Your task to perform on an android device: empty trash in the gmail app Image 0: 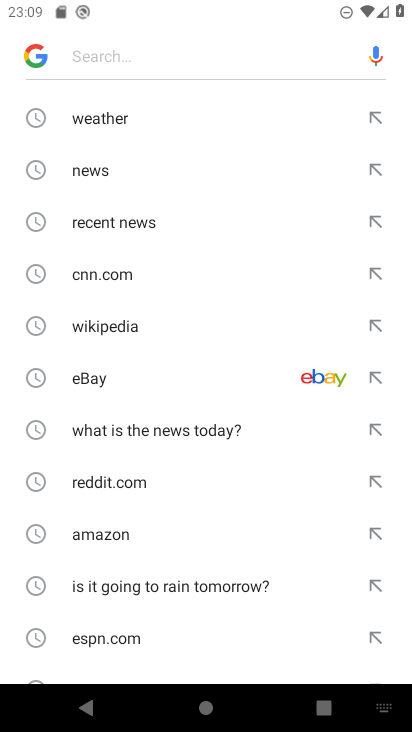
Step 0: press home button
Your task to perform on an android device: empty trash in the gmail app Image 1: 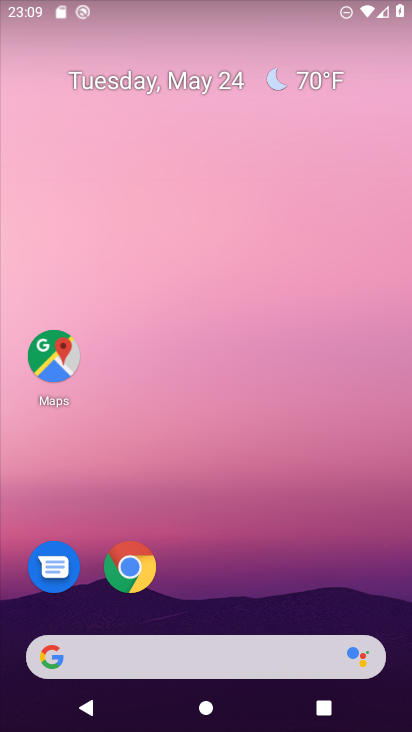
Step 1: drag from (265, 582) to (215, 88)
Your task to perform on an android device: empty trash in the gmail app Image 2: 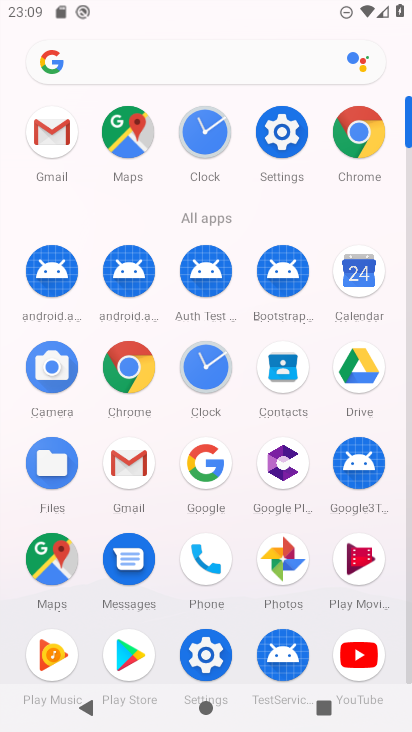
Step 2: click (127, 467)
Your task to perform on an android device: empty trash in the gmail app Image 3: 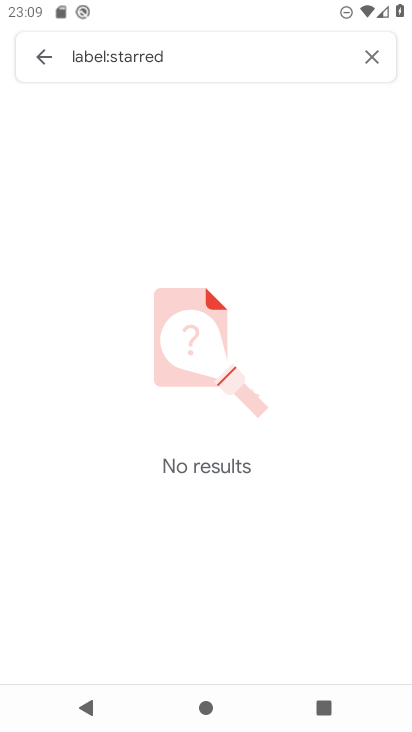
Step 3: click (49, 57)
Your task to perform on an android device: empty trash in the gmail app Image 4: 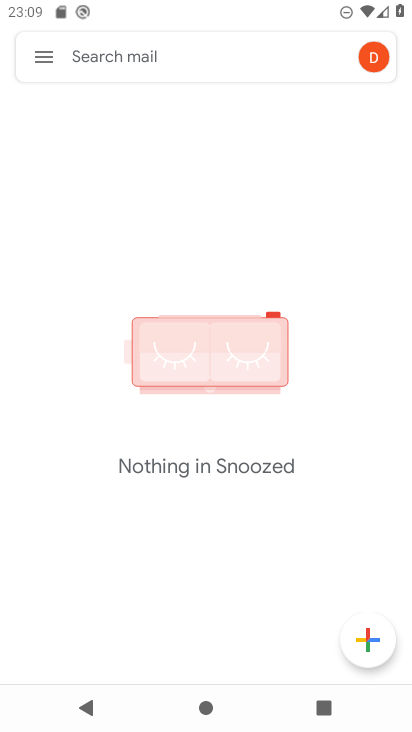
Step 4: click (50, 47)
Your task to perform on an android device: empty trash in the gmail app Image 5: 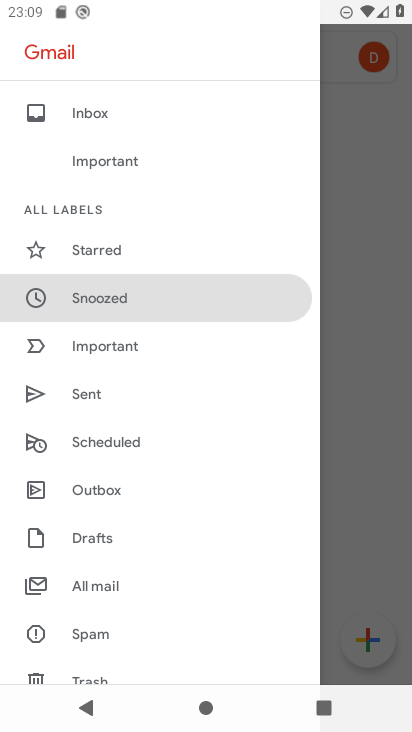
Step 5: click (155, 676)
Your task to perform on an android device: empty trash in the gmail app Image 6: 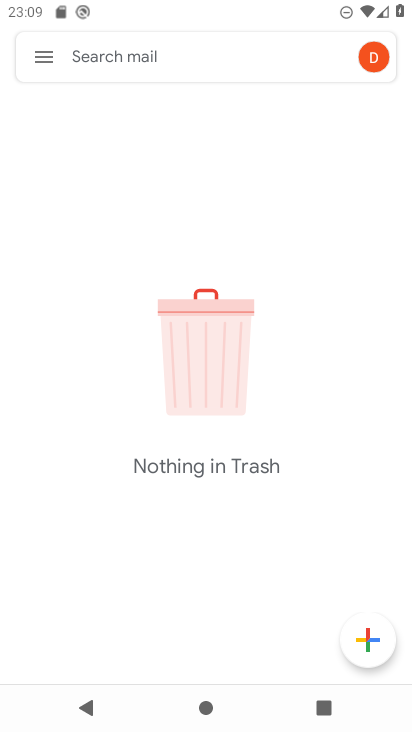
Step 6: task complete